Your task to perform on an android device: Open Google Maps and go to "Timeline" Image 0: 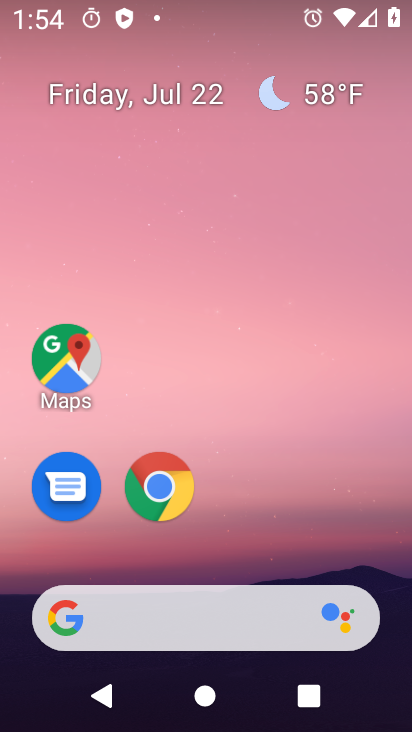
Step 0: drag from (348, 539) to (333, 101)
Your task to perform on an android device: Open Google Maps and go to "Timeline" Image 1: 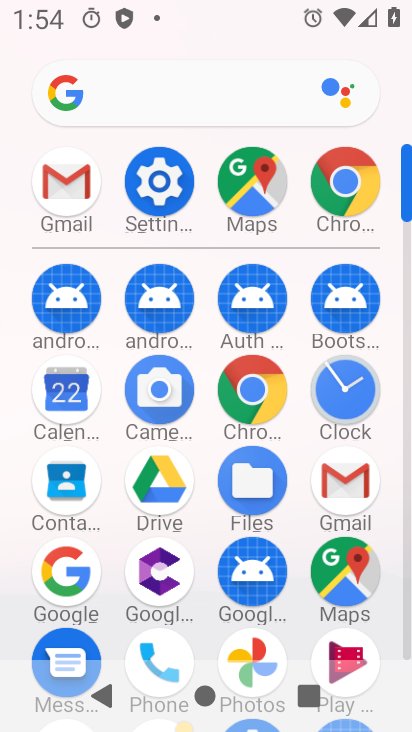
Step 1: click (270, 199)
Your task to perform on an android device: Open Google Maps and go to "Timeline" Image 2: 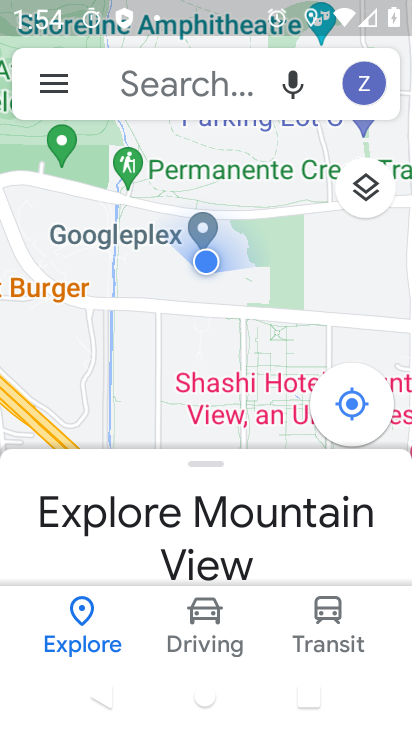
Step 2: click (52, 79)
Your task to perform on an android device: Open Google Maps and go to "Timeline" Image 3: 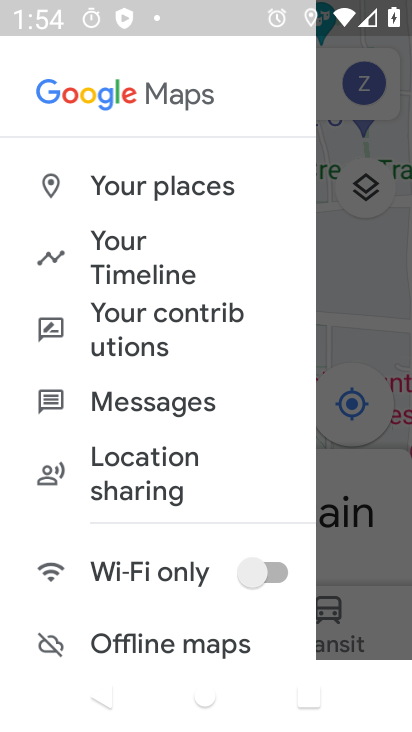
Step 3: click (177, 274)
Your task to perform on an android device: Open Google Maps and go to "Timeline" Image 4: 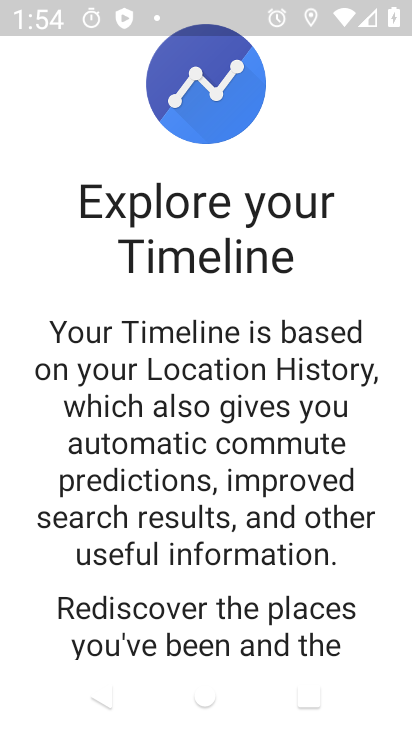
Step 4: task complete